Your task to perform on an android device: toggle wifi Image 0: 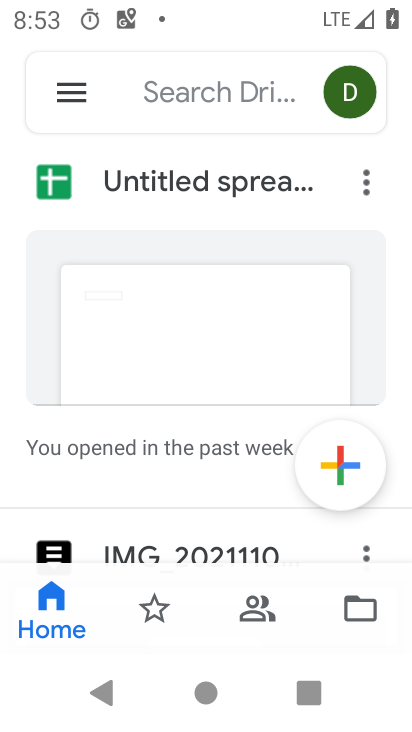
Step 0: drag from (234, 0) to (269, 365)
Your task to perform on an android device: toggle wifi Image 1: 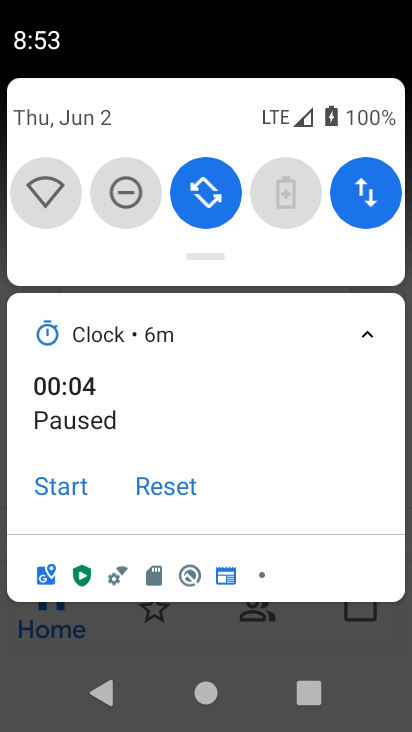
Step 1: click (37, 179)
Your task to perform on an android device: toggle wifi Image 2: 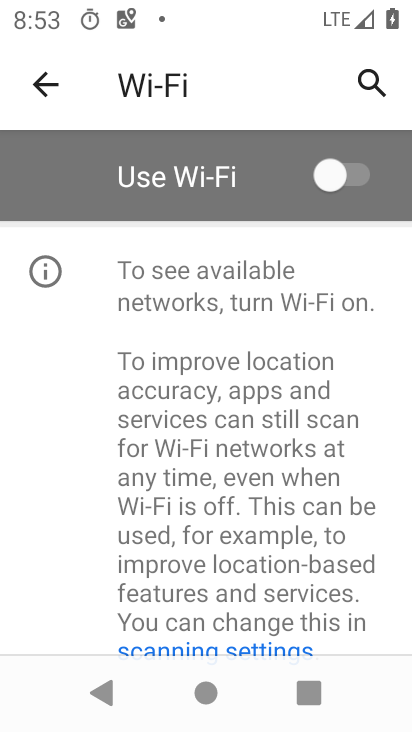
Step 2: click (369, 178)
Your task to perform on an android device: toggle wifi Image 3: 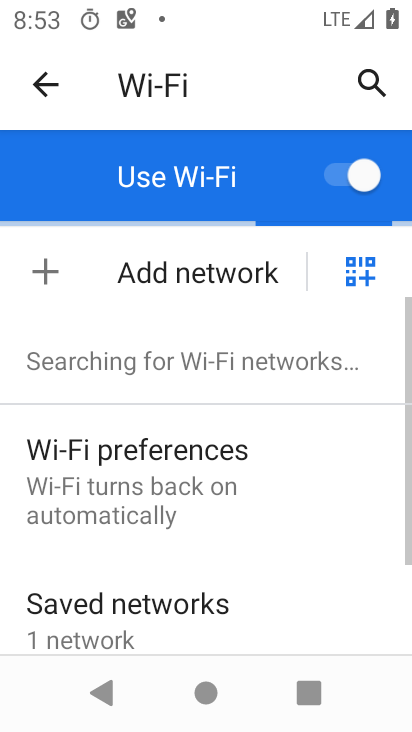
Step 3: task complete